Your task to perform on an android device: turn off improve location accuracy Image 0: 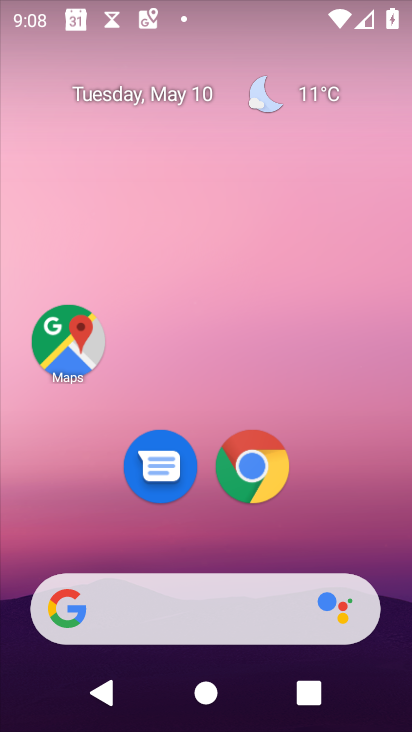
Step 0: drag from (339, 524) to (250, 134)
Your task to perform on an android device: turn off improve location accuracy Image 1: 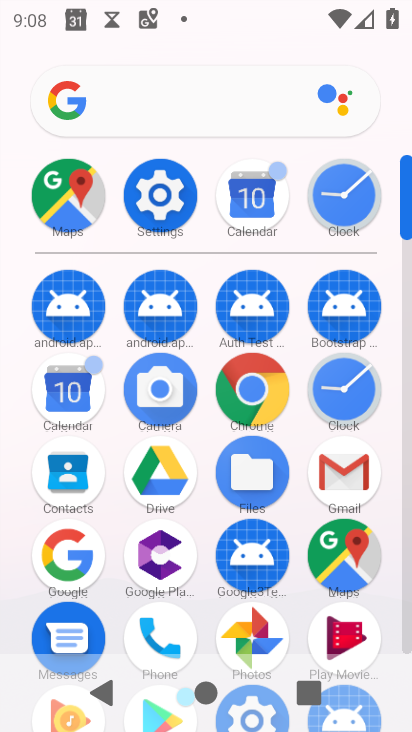
Step 1: click (130, 198)
Your task to perform on an android device: turn off improve location accuracy Image 2: 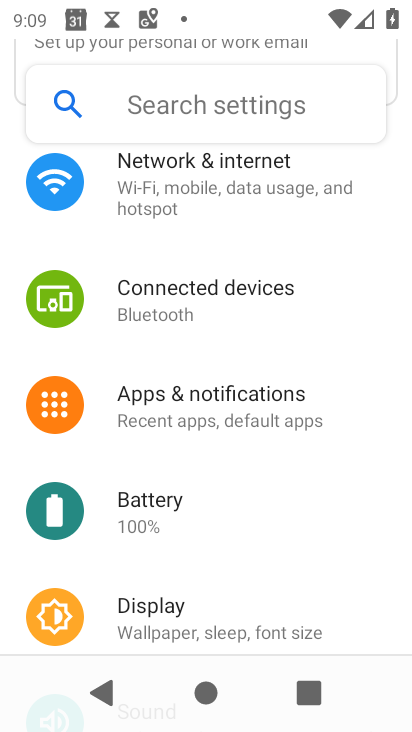
Step 2: drag from (190, 521) to (183, 389)
Your task to perform on an android device: turn off improve location accuracy Image 3: 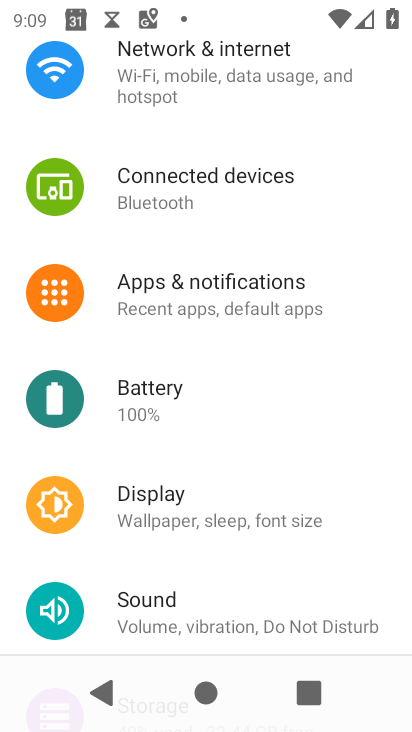
Step 3: drag from (198, 510) to (200, 432)
Your task to perform on an android device: turn off improve location accuracy Image 4: 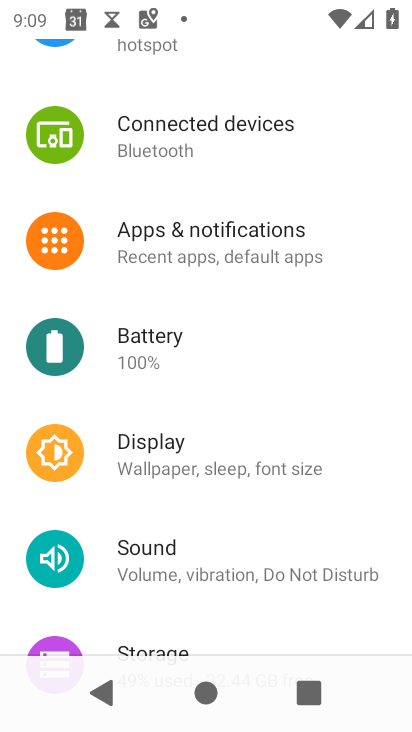
Step 4: drag from (197, 510) to (193, 394)
Your task to perform on an android device: turn off improve location accuracy Image 5: 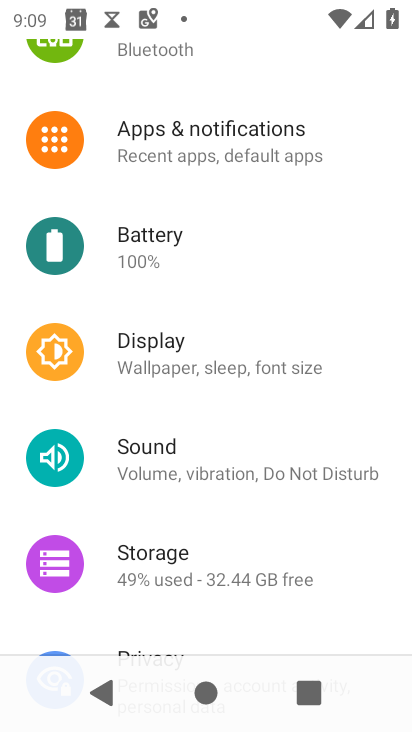
Step 5: drag from (214, 531) to (201, 427)
Your task to perform on an android device: turn off improve location accuracy Image 6: 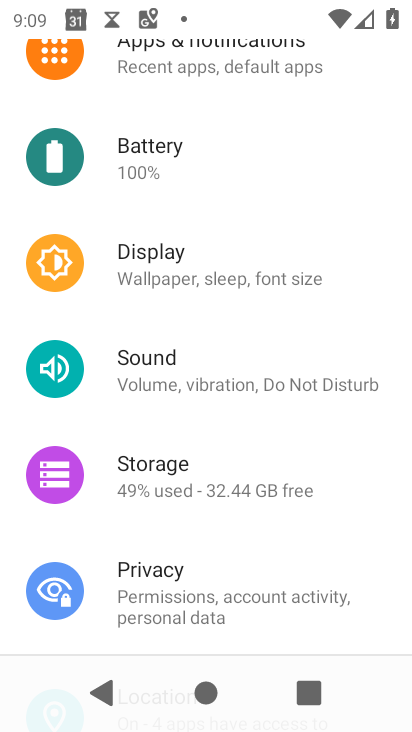
Step 6: drag from (202, 527) to (194, 449)
Your task to perform on an android device: turn off improve location accuracy Image 7: 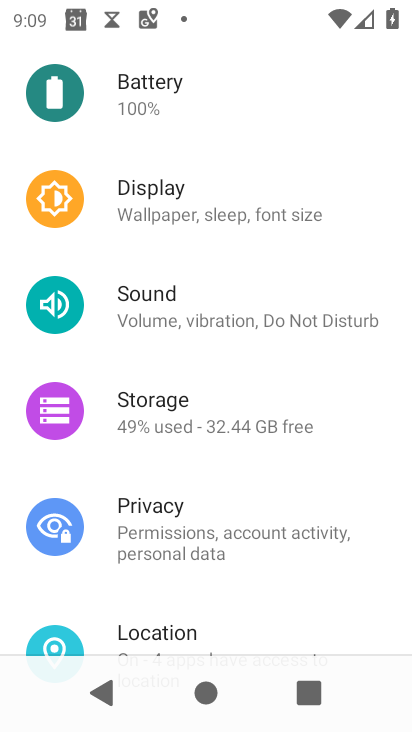
Step 7: drag from (208, 559) to (195, 452)
Your task to perform on an android device: turn off improve location accuracy Image 8: 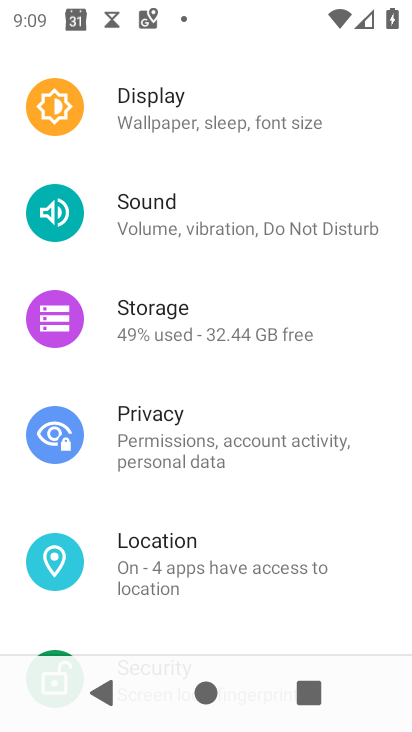
Step 8: click (200, 541)
Your task to perform on an android device: turn off improve location accuracy Image 9: 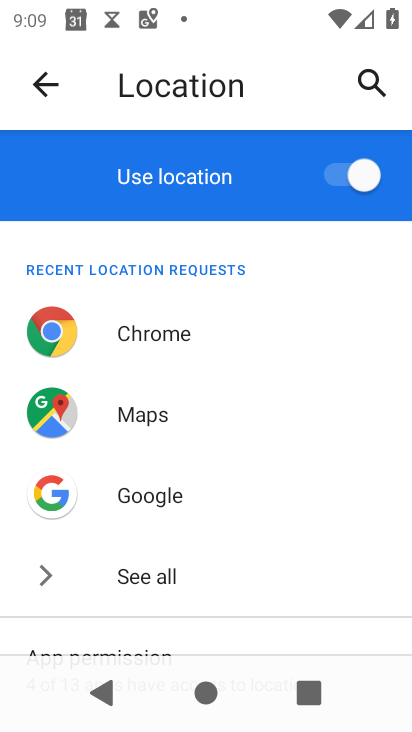
Step 9: drag from (210, 603) to (205, 288)
Your task to perform on an android device: turn off improve location accuracy Image 10: 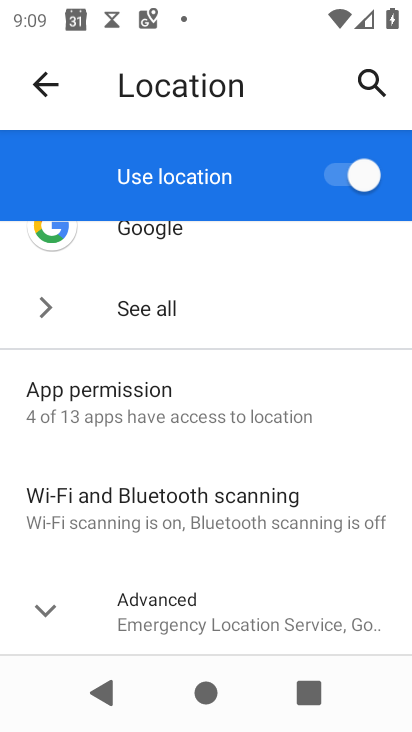
Step 10: click (244, 610)
Your task to perform on an android device: turn off improve location accuracy Image 11: 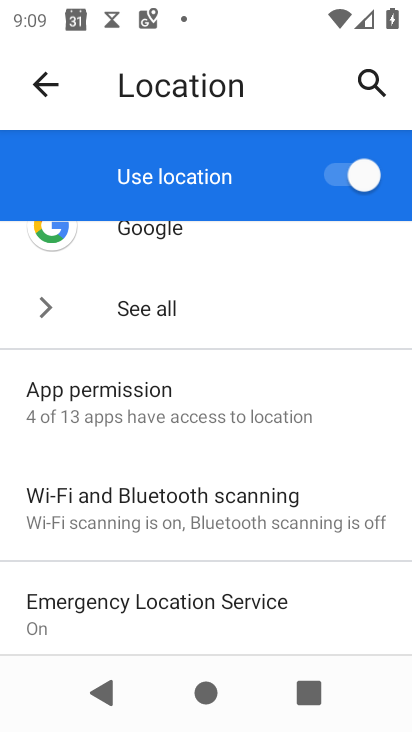
Step 11: drag from (242, 611) to (253, 406)
Your task to perform on an android device: turn off improve location accuracy Image 12: 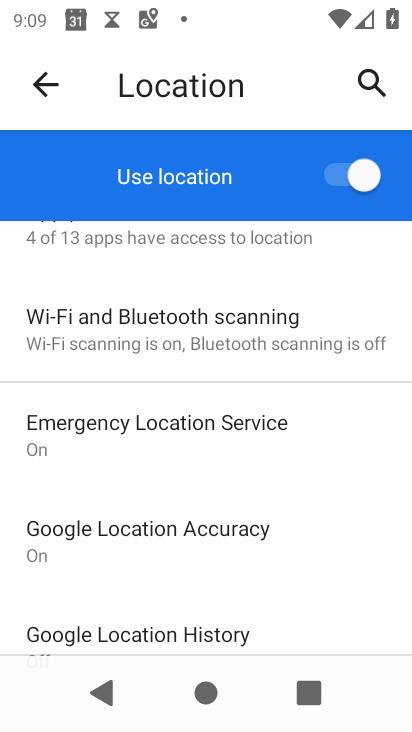
Step 12: click (236, 542)
Your task to perform on an android device: turn off improve location accuracy Image 13: 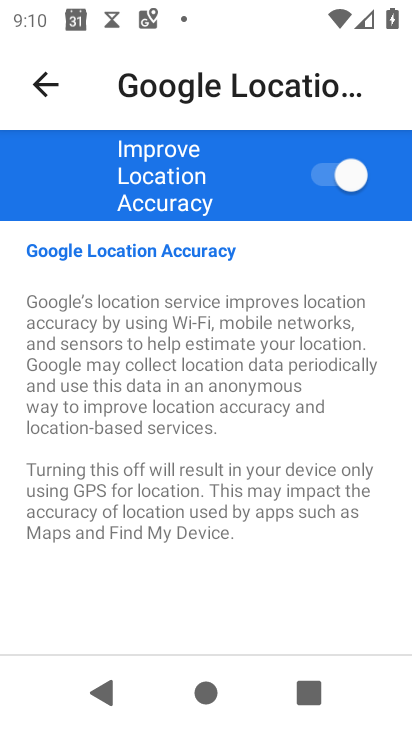
Step 13: click (321, 179)
Your task to perform on an android device: turn off improve location accuracy Image 14: 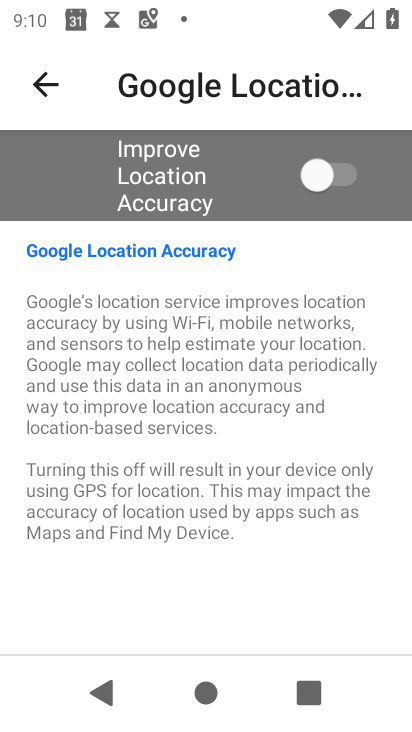
Step 14: task complete